Your task to perform on an android device: Open display settings Image 0: 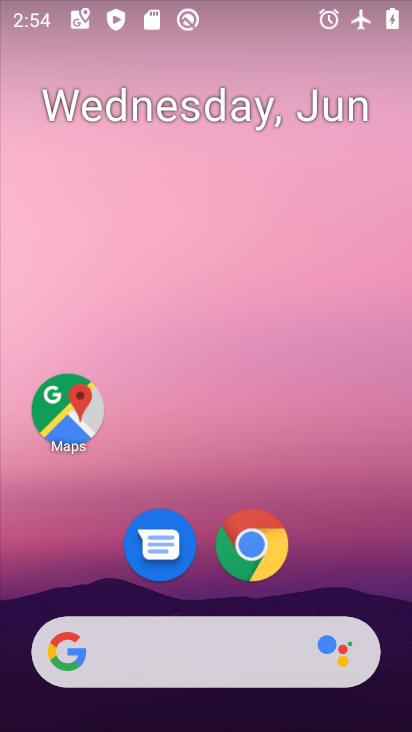
Step 0: drag from (333, 550) to (337, 124)
Your task to perform on an android device: Open display settings Image 1: 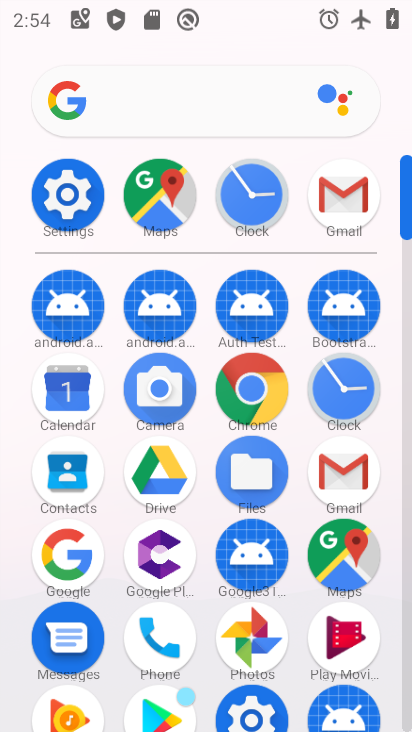
Step 1: click (58, 187)
Your task to perform on an android device: Open display settings Image 2: 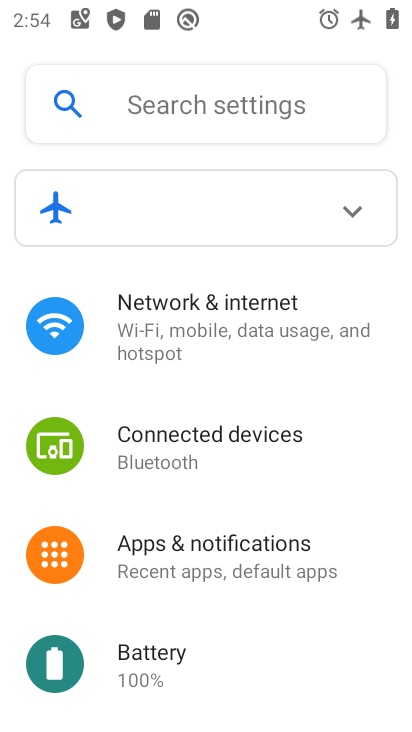
Step 2: drag from (228, 515) to (274, 85)
Your task to perform on an android device: Open display settings Image 3: 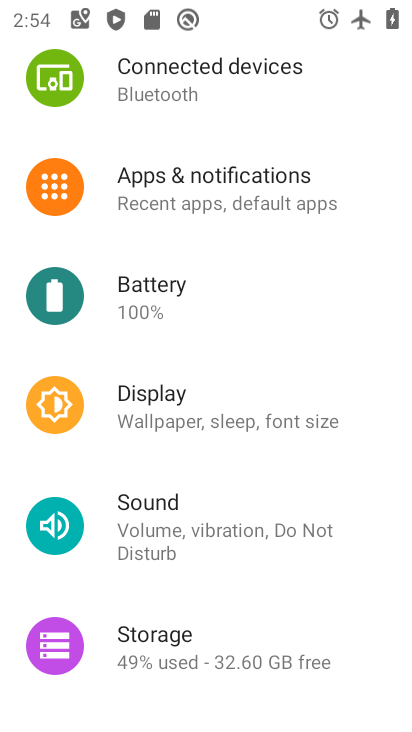
Step 3: click (202, 407)
Your task to perform on an android device: Open display settings Image 4: 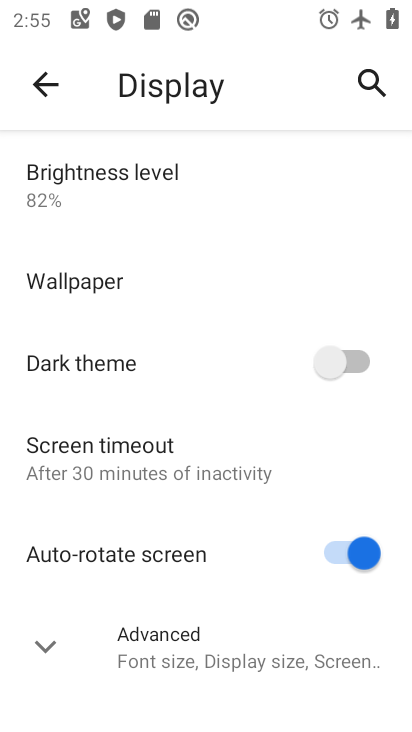
Step 4: task complete